Your task to perform on an android device: Go to Wikipedia Image 0: 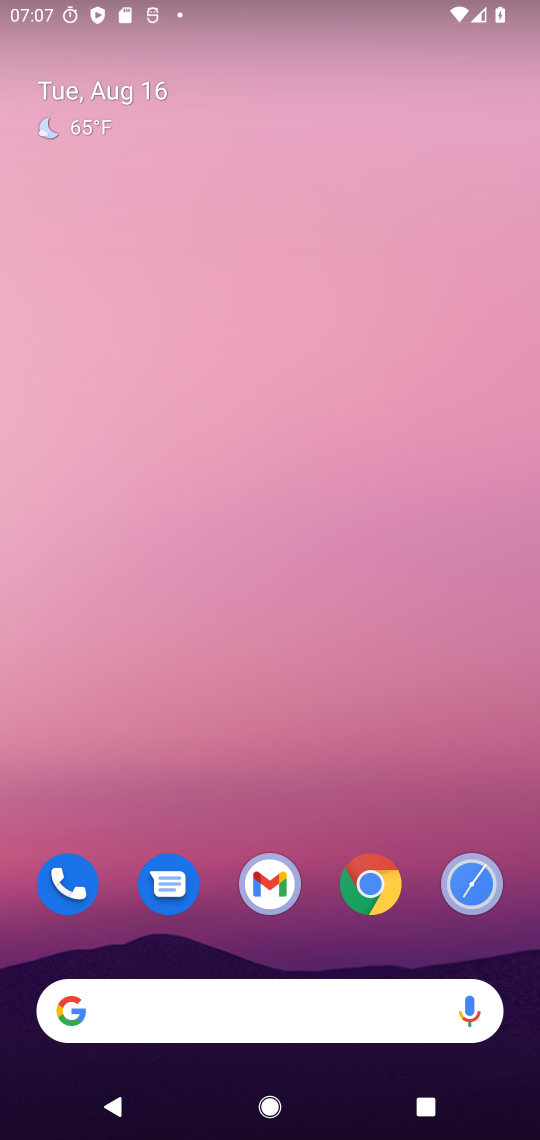
Step 0: press home button
Your task to perform on an android device: Go to Wikipedia Image 1: 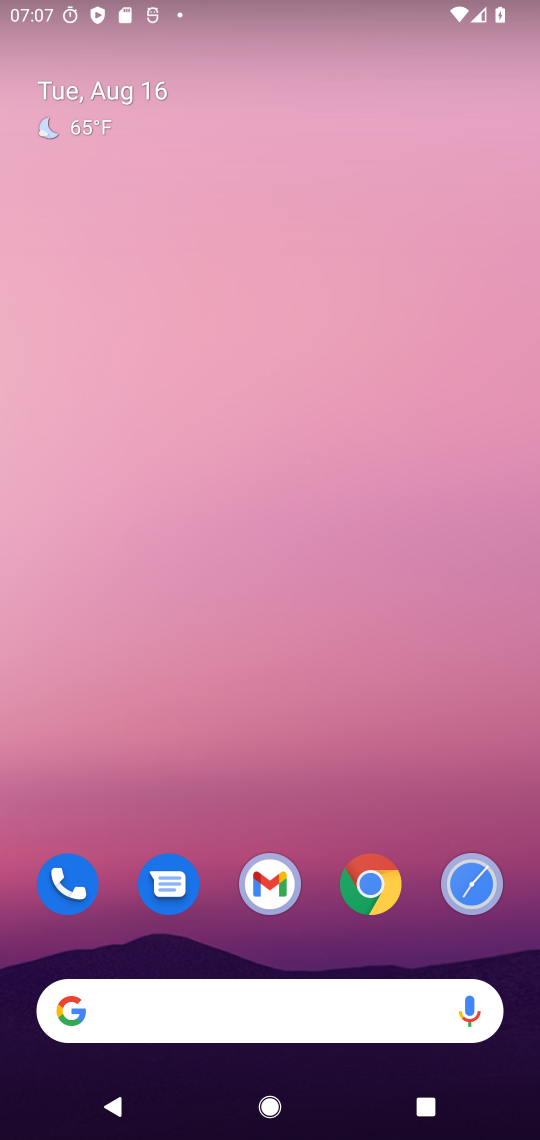
Step 1: click (73, 1010)
Your task to perform on an android device: Go to Wikipedia Image 2: 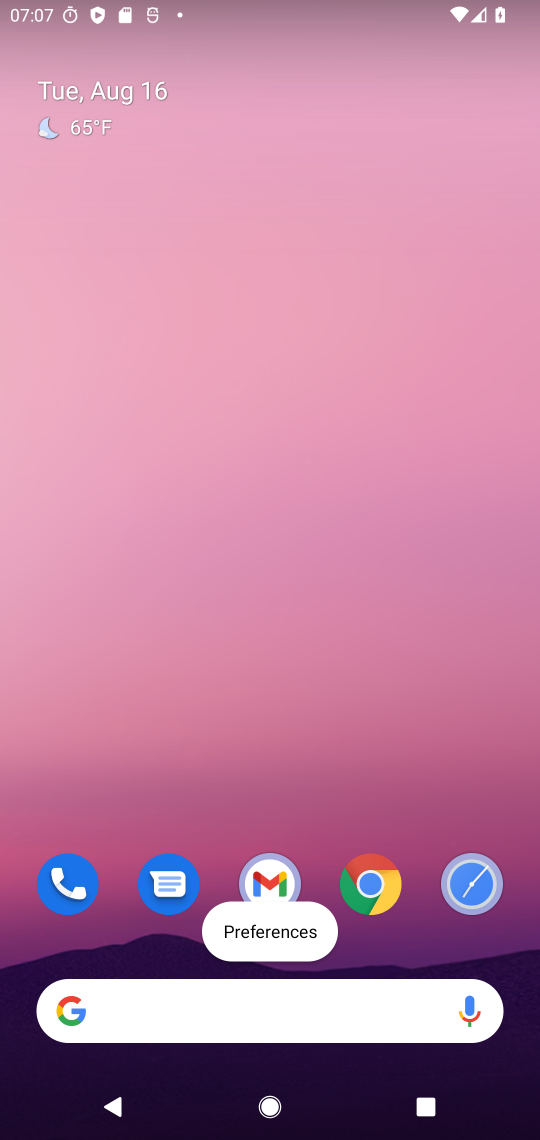
Step 2: click (76, 1010)
Your task to perform on an android device: Go to Wikipedia Image 3: 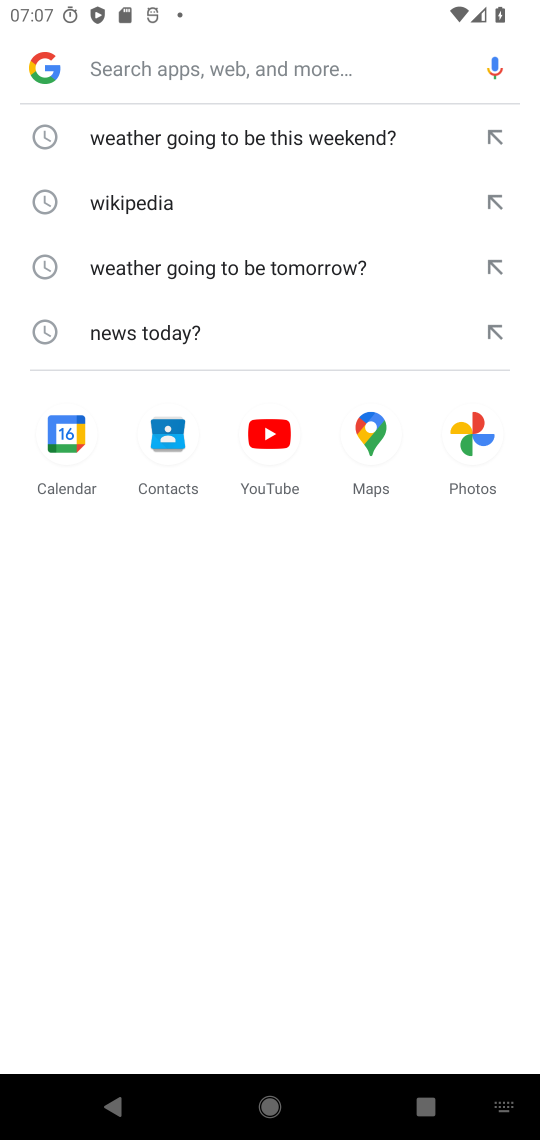
Step 3: click (116, 201)
Your task to perform on an android device: Go to Wikipedia Image 4: 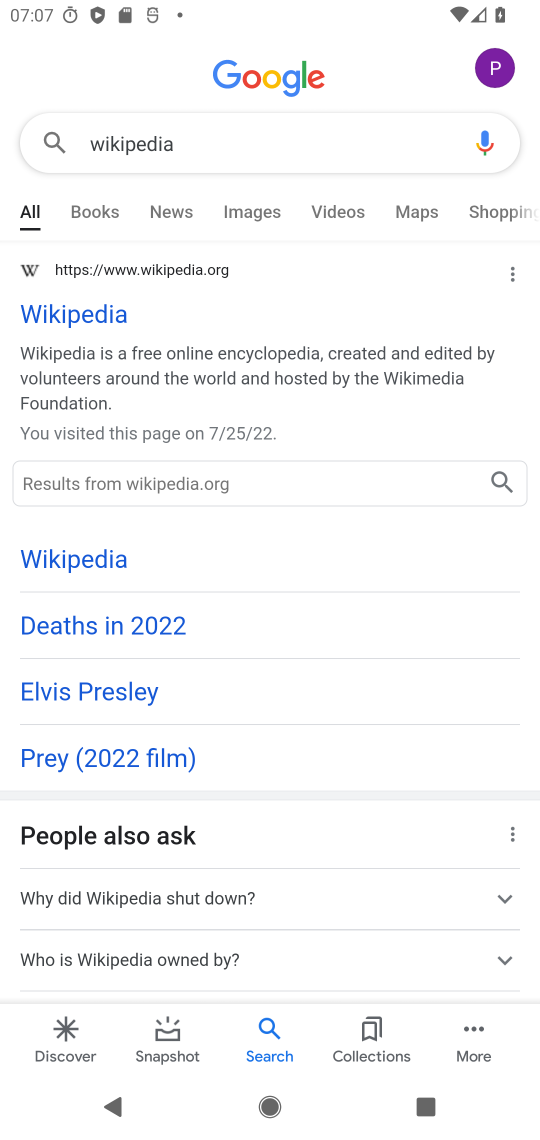
Step 4: click (84, 308)
Your task to perform on an android device: Go to Wikipedia Image 5: 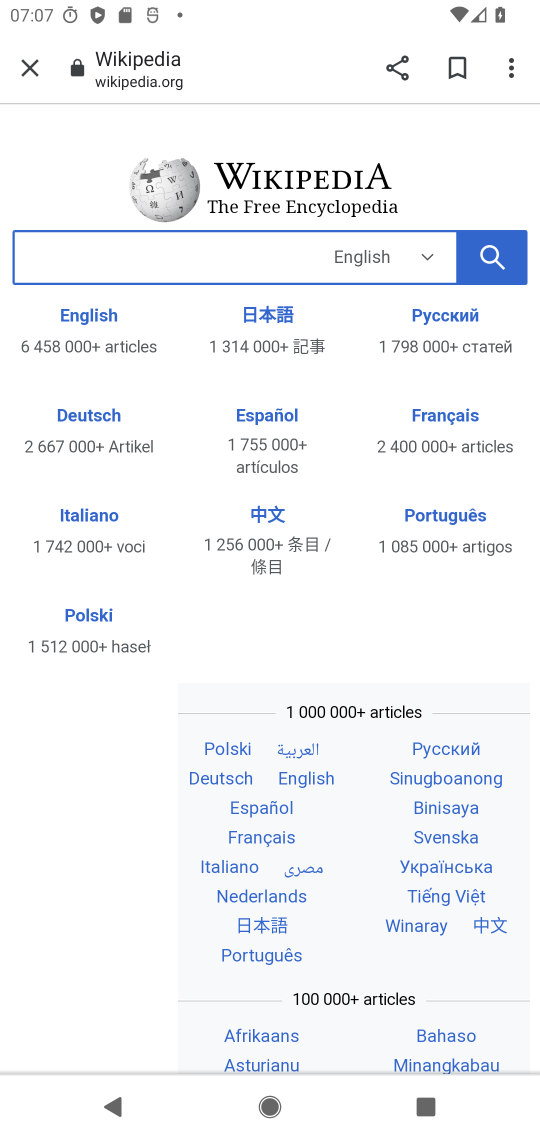
Step 5: task complete